Your task to perform on an android device: turn on priority inbox in the gmail app Image 0: 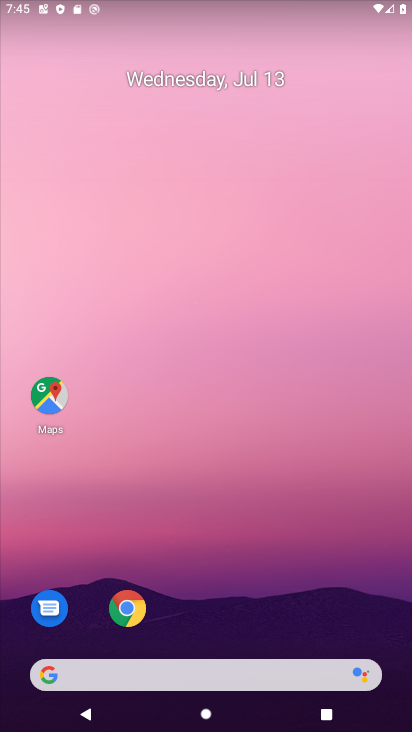
Step 0: drag from (151, 133) to (146, 91)
Your task to perform on an android device: turn on priority inbox in the gmail app Image 1: 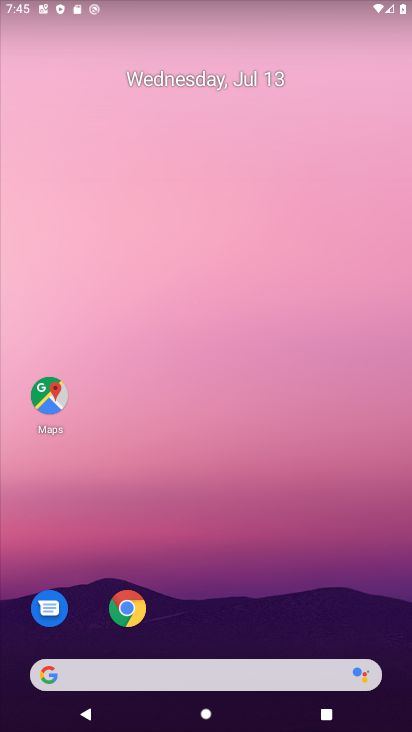
Step 1: drag from (207, 643) to (195, 38)
Your task to perform on an android device: turn on priority inbox in the gmail app Image 2: 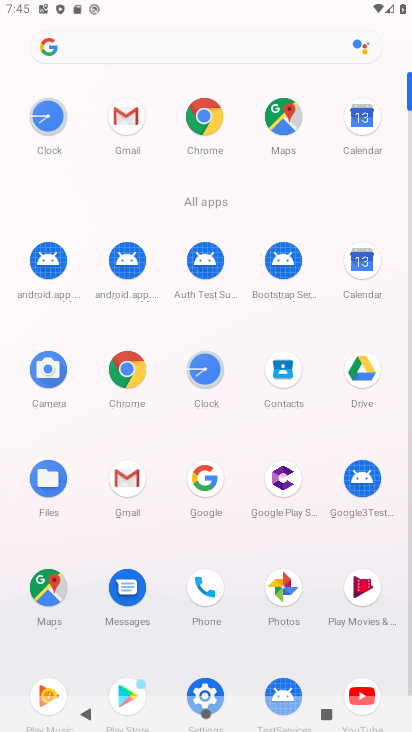
Step 2: click (121, 497)
Your task to perform on an android device: turn on priority inbox in the gmail app Image 3: 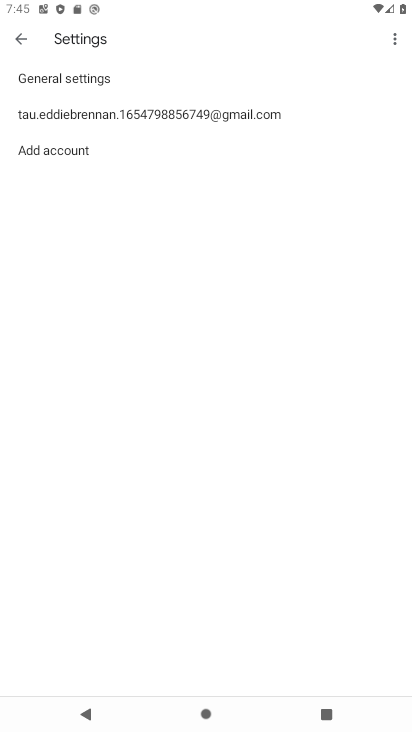
Step 3: click (55, 122)
Your task to perform on an android device: turn on priority inbox in the gmail app Image 4: 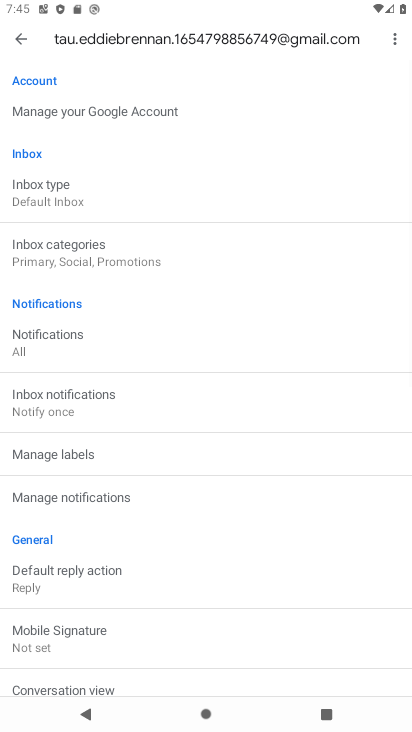
Step 4: click (57, 197)
Your task to perform on an android device: turn on priority inbox in the gmail app Image 5: 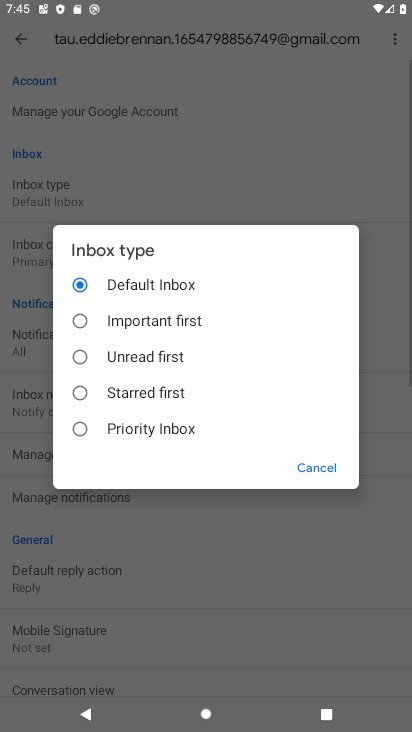
Step 5: click (127, 428)
Your task to perform on an android device: turn on priority inbox in the gmail app Image 6: 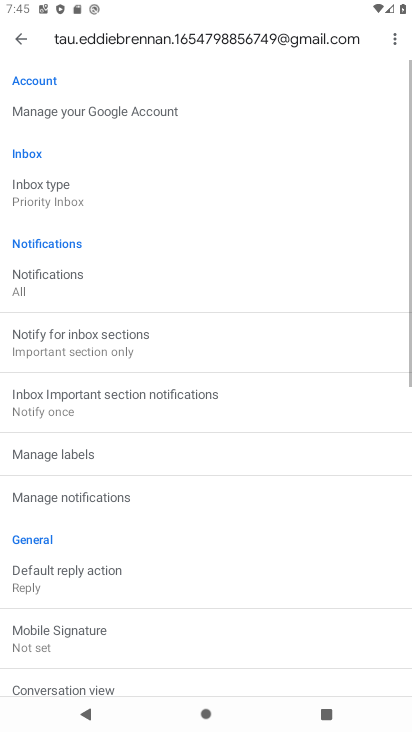
Step 6: task complete